Your task to perform on an android device: Look up the best rated coffee maker on Lowe's. Image 0: 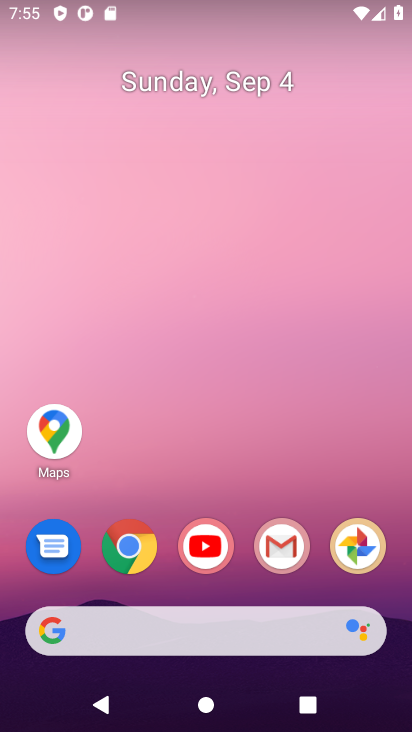
Step 0: click (125, 558)
Your task to perform on an android device: Look up the best rated coffee maker on Lowe's. Image 1: 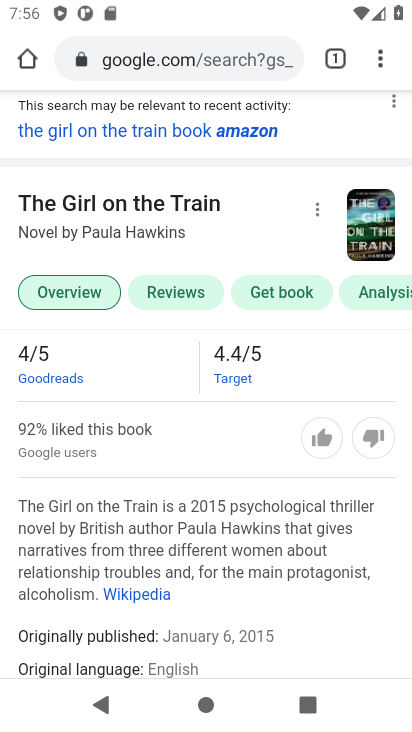
Step 1: click (186, 57)
Your task to perform on an android device: Look up the best rated coffee maker on Lowe's. Image 2: 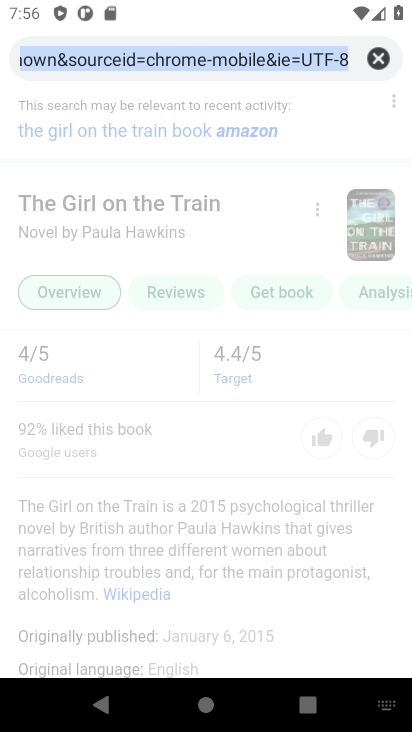
Step 2: click (372, 60)
Your task to perform on an android device: Look up the best rated coffee maker on Lowe's. Image 3: 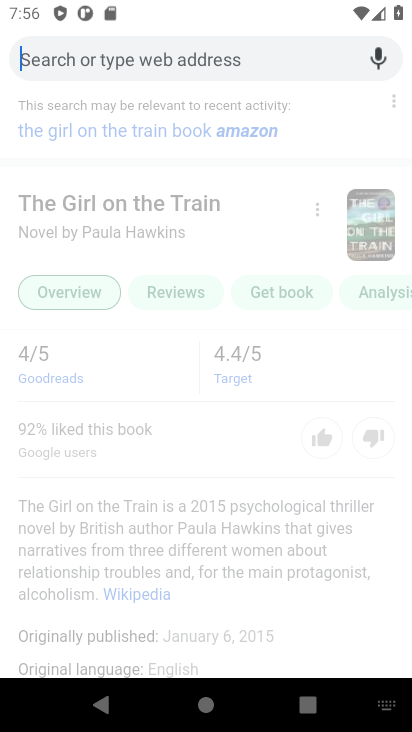
Step 3: type "Lowe's"
Your task to perform on an android device: Look up the best rated coffee maker on Lowe's. Image 4: 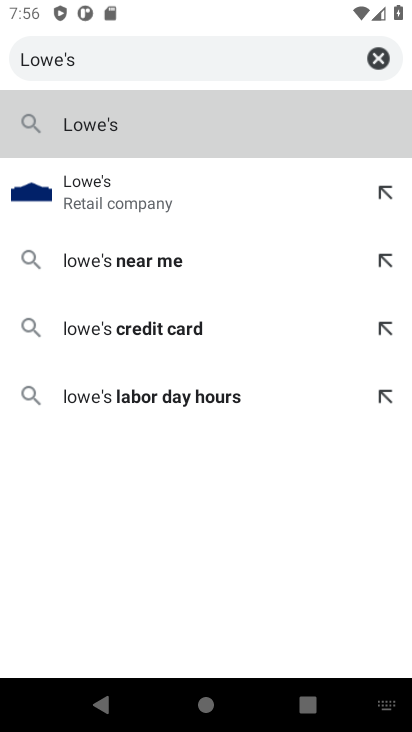
Step 4: click (89, 192)
Your task to perform on an android device: Look up the best rated coffee maker on Lowe's. Image 5: 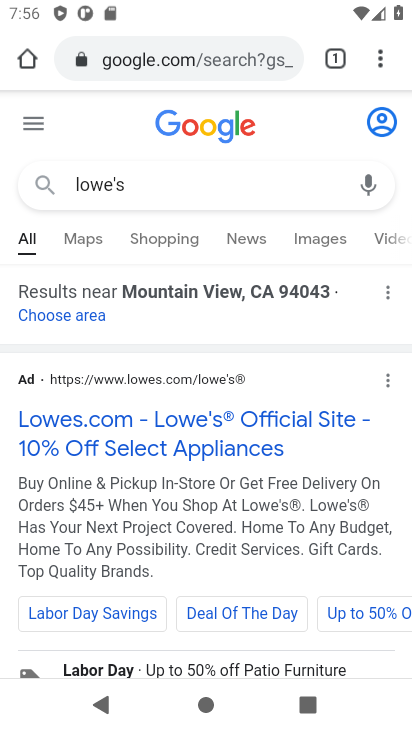
Step 5: click (92, 422)
Your task to perform on an android device: Look up the best rated coffee maker on Lowe's. Image 6: 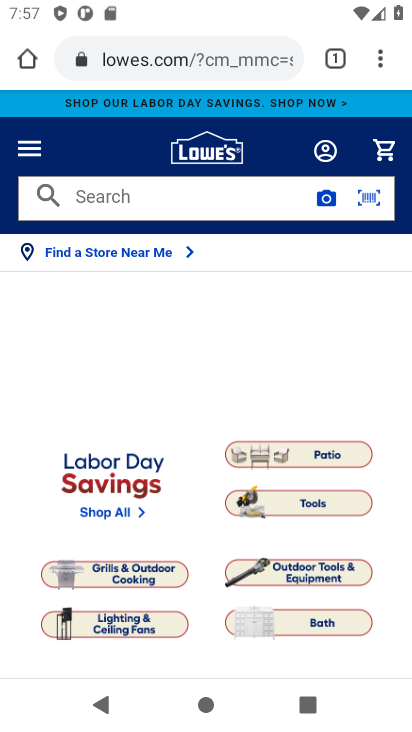
Step 6: click (132, 209)
Your task to perform on an android device: Look up the best rated coffee maker on Lowe's. Image 7: 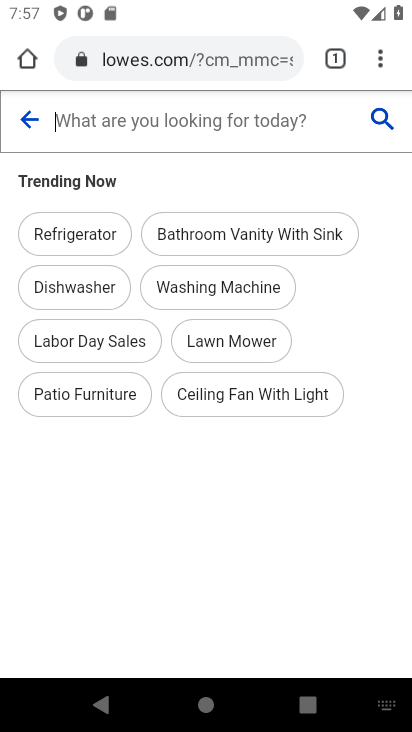
Step 7: type "best rated coffee maker"
Your task to perform on an android device: Look up the best rated coffee maker on Lowe's. Image 8: 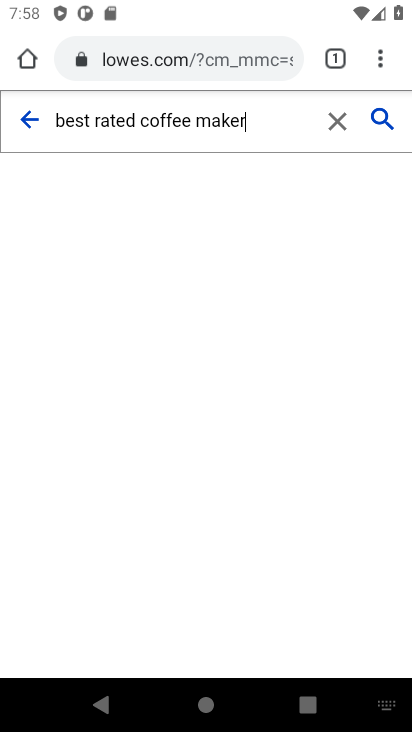
Step 8: click (378, 122)
Your task to perform on an android device: Look up the best rated coffee maker on Lowe's. Image 9: 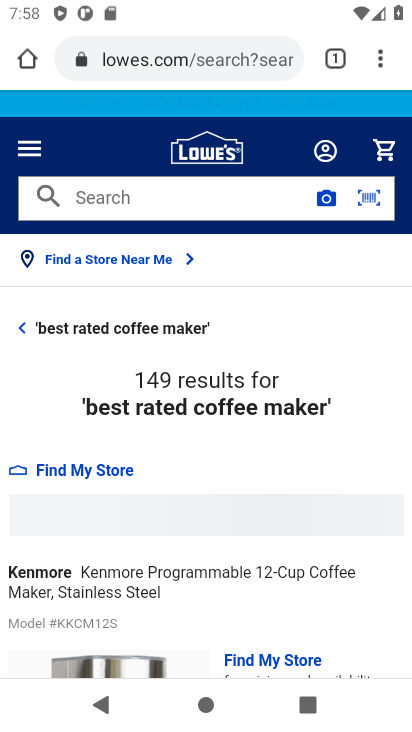
Step 9: task complete